Your task to perform on an android device: turn off picture-in-picture Image 0: 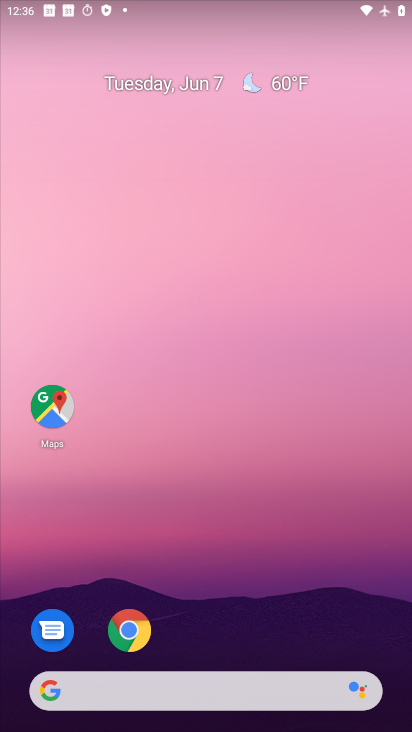
Step 0: drag from (317, 651) to (219, 75)
Your task to perform on an android device: turn off picture-in-picture Image 1: 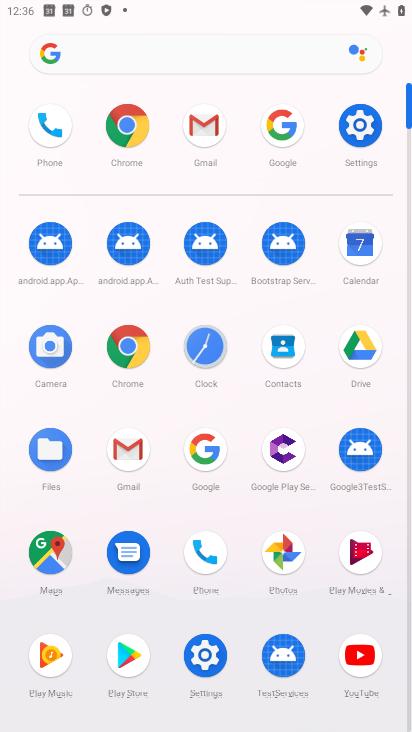
Step 1: click (135, 347)
Your task to perform on an android device: turn off picture-in-picture Image 2: 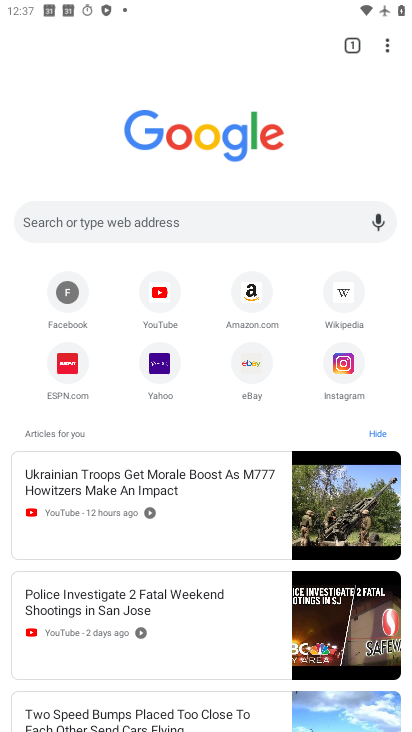
Step 2: task complete